Your task to perform on an android device: turn off notifications settings in the gmail app Image 0: 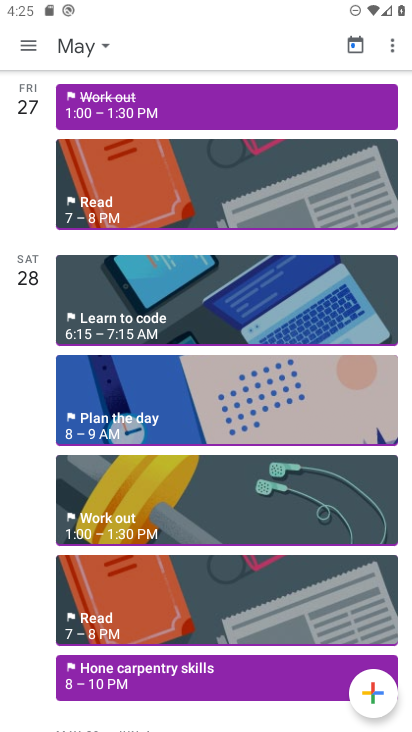
Step 0: press home button
Your task to perform on an android device: turn off notifications settings in the gmail app Image 1: 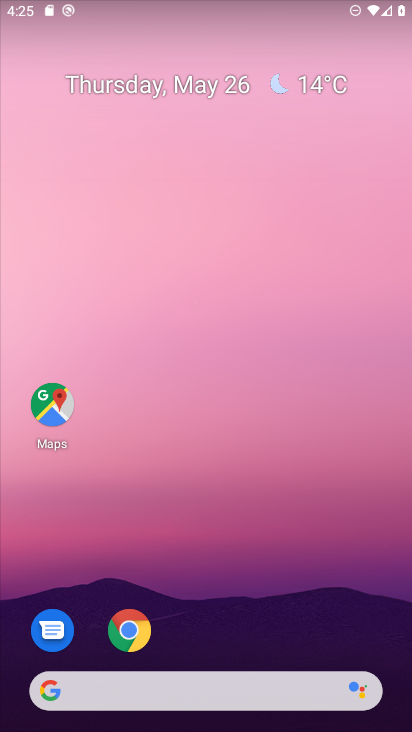
Step 1: drag from (238, 626) to (193, 90)
Your task to perform on an android device: turn off notifications settings in the gmail app Image 2: 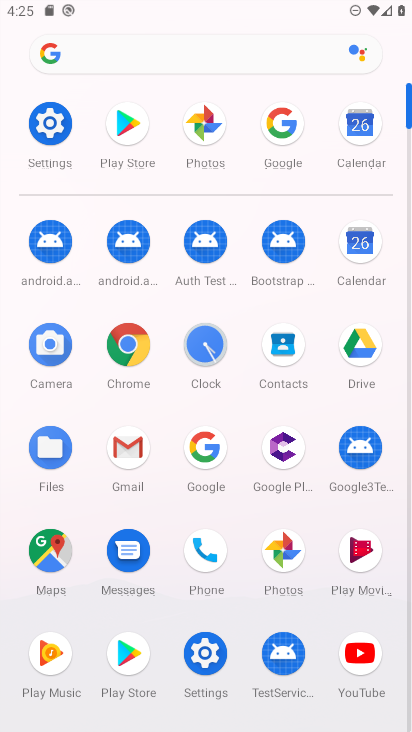
Step 2: click (128, 444)
Your task to perform on an android device: turn off notifications settings in the gmail app Image 3: 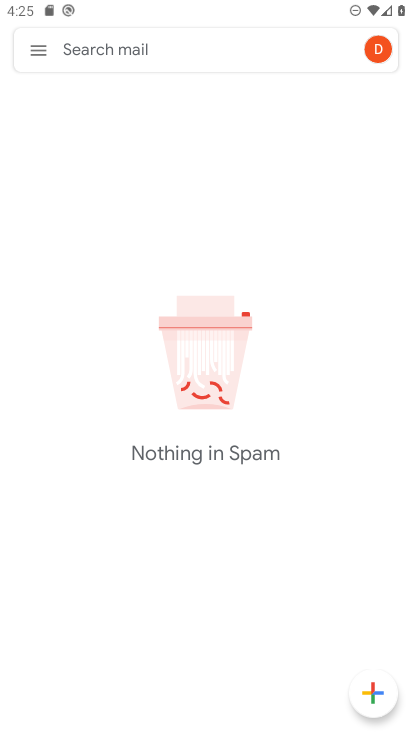
Step 3: click (39, 50)
Your task to perform on an android device: turn off notifications settings in the gmail app Image 4: 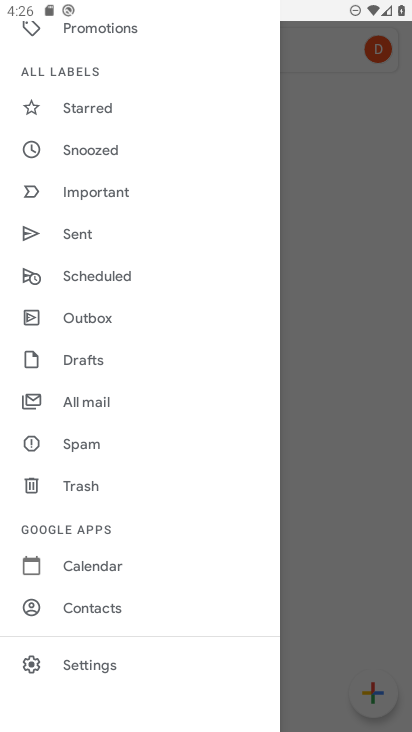
Step 4: click (95, 662)
Your task to perform on an android device: turn off notifications settings in the gmail app Image 5: 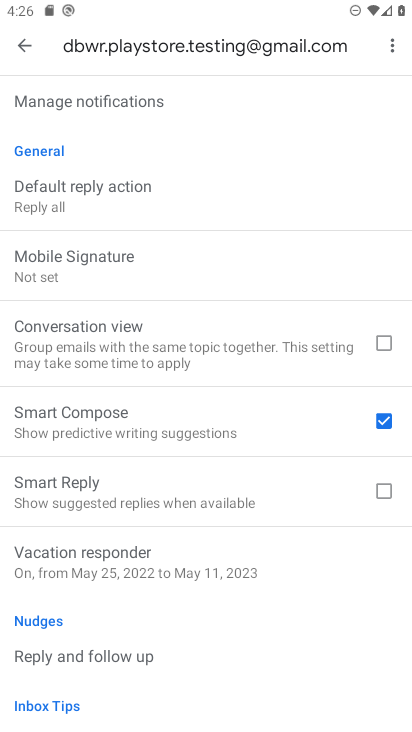
Step 5: click (113, 101)
Your task to perform on an android device: turn off notifications settings in the gmail app Image 6: 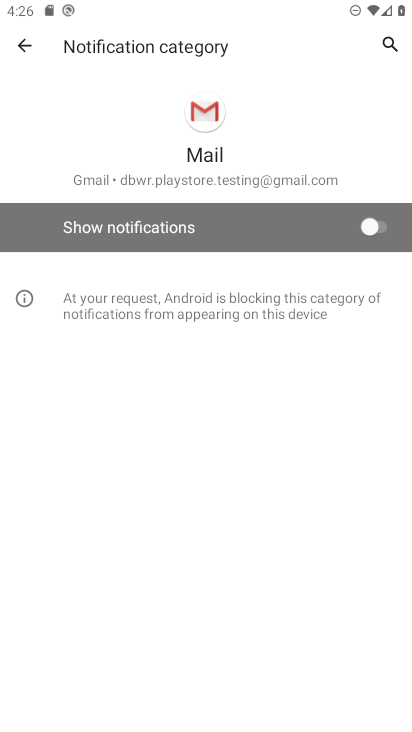
Step 6: task complete